Your task to perform on an android device: snooze an email in the gmail app Image 0: 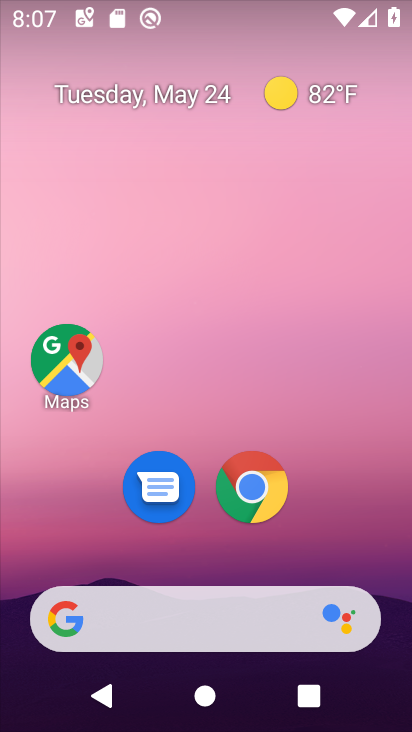
Step 0: drag from (353, 537) to (354, 168)
Your task to perform on an android device: snooze an email in the gmail app Image 1: 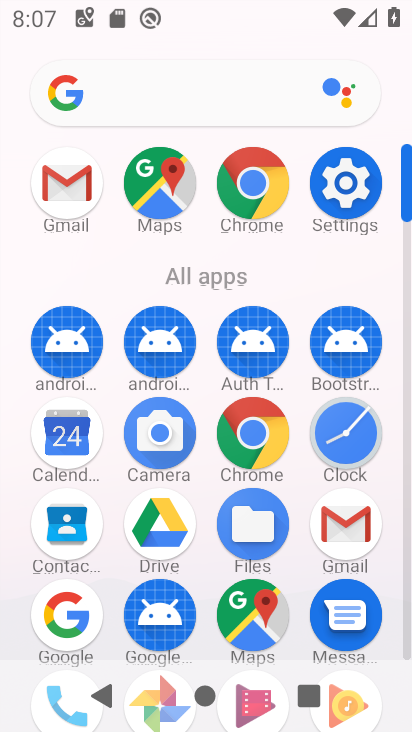
Step 1: click (366, 534)
Your task to perform on an android device: snooze an email in the gmail app Image 2: 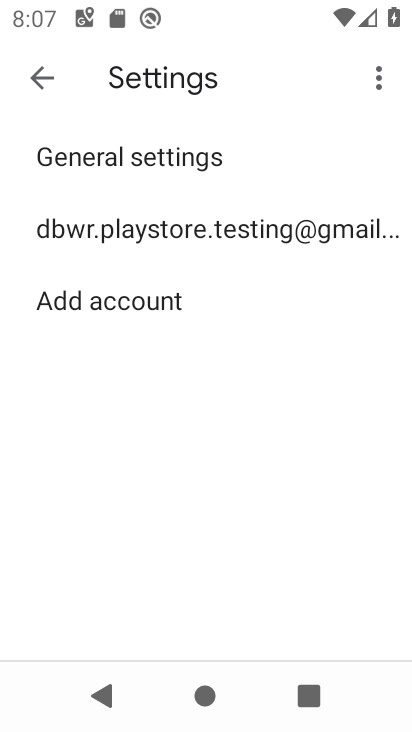
Step 2: click (37, 66)
Your task to perform on an android device: snooze an email in the gmail app Image 3: 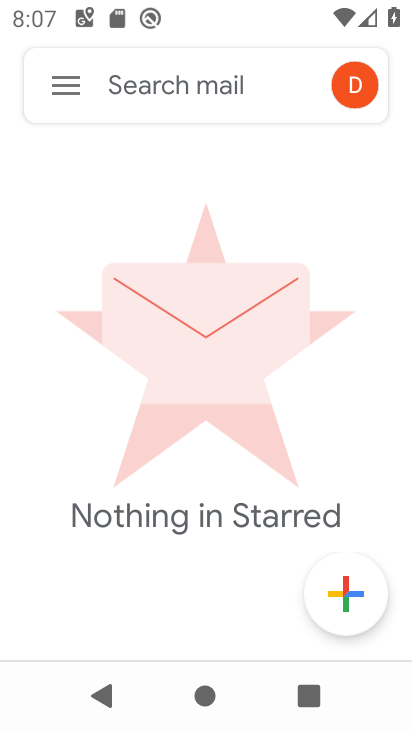
Step 3: click (59, 97)
Your task to perform on an android device: snooze an email in the gmail app Image 4: 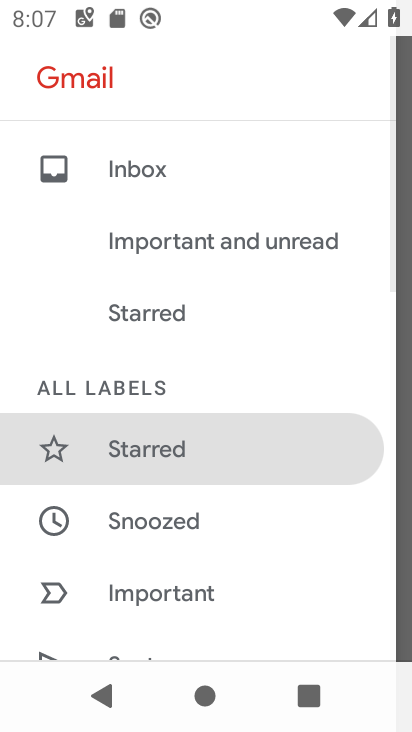
Step 4: click (187, 529)
Your task to perform on an android device: snooze an email in the gmail app Image 5: 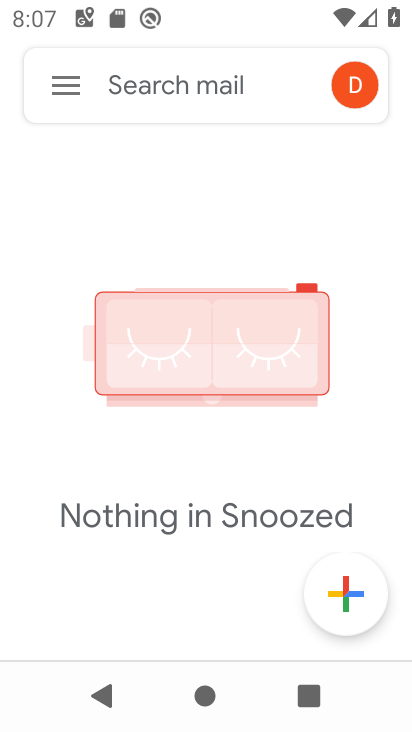
Step 5: task complete